Your task to perform on an android device: Open privacy settings Image 0: 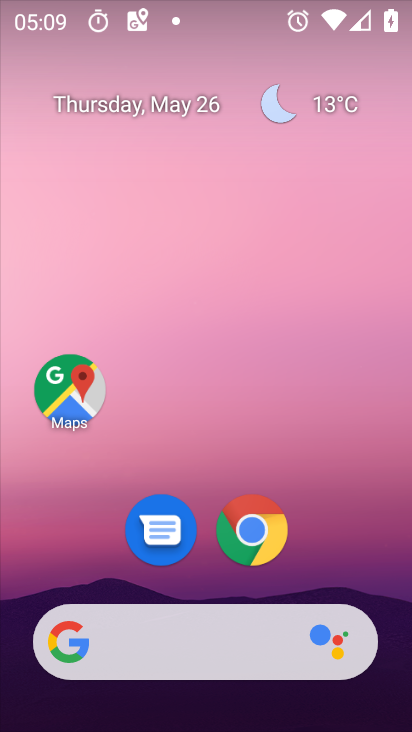
Step 0: drag from (217, 614) to (261, 24)
Your task to perform on an android device: Open privacy settings Image 1: 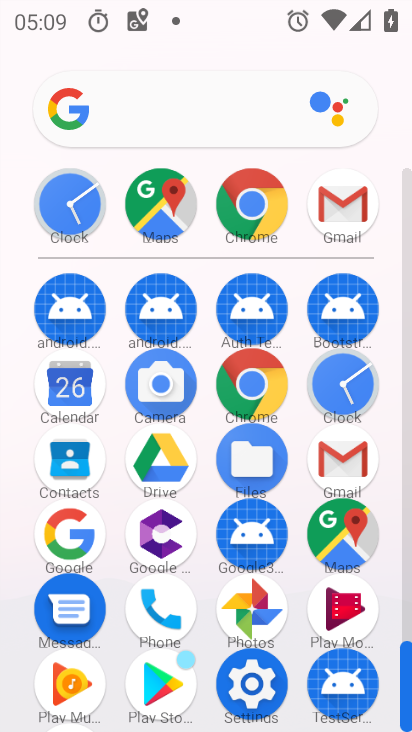
Step 1: click (253, 669)
Your task to perform on an android device: Open privacy settings Image 2: 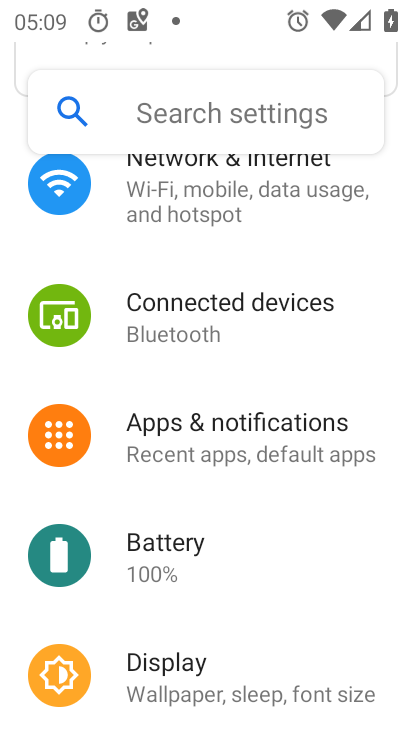
Step 2: drag from (280, 599) to (295, 87)
Your task to perform on an android device: Open privacy settings Image 3: 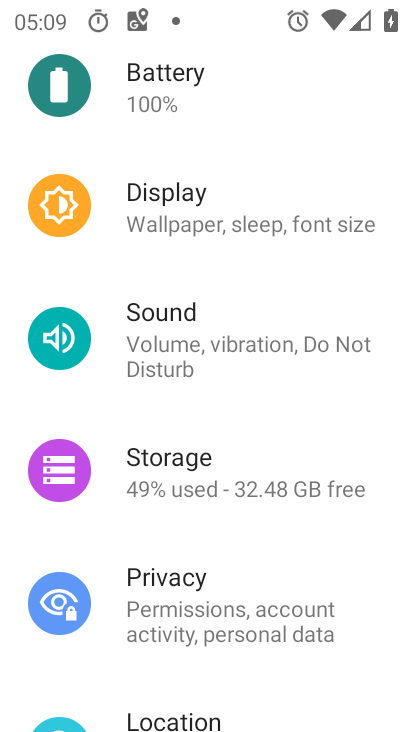
Step 3: click (253, 604)
Your task to perform on an android device: Open privacy settings Image 4: 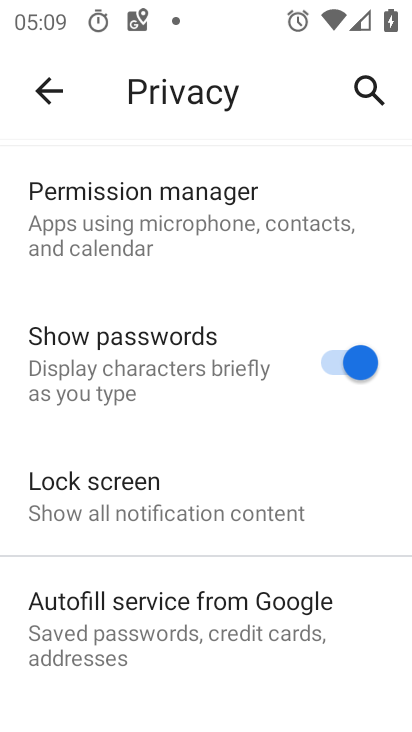
Step 4: task complete